Your task to perform on an android device: toggle notifications settings in the gmail app Image 0: 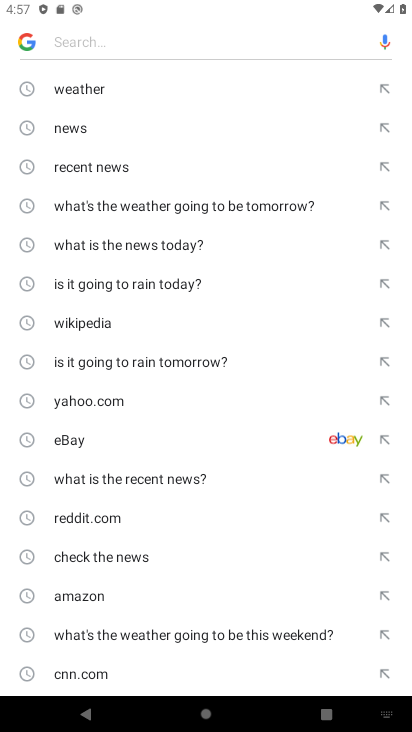
Step 0: press back button
Your task to perform on an android device: toggle notifications settings in the gmail app Image 1: 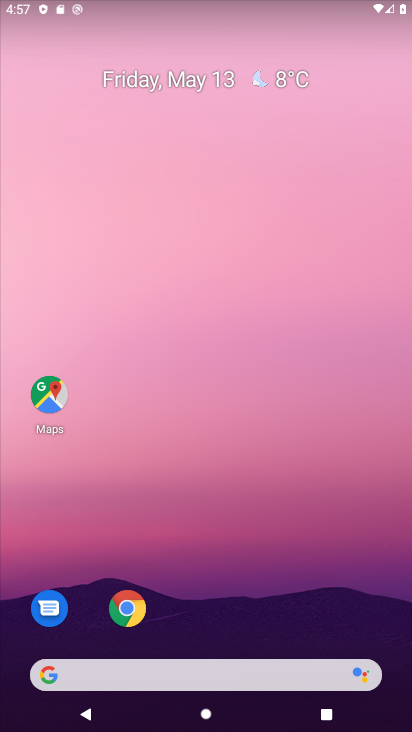
Step 1: drag from (253, 610) to (208, 174)
Your task to perform on an android device: toggle notifications settings in the gmail app Image 2: 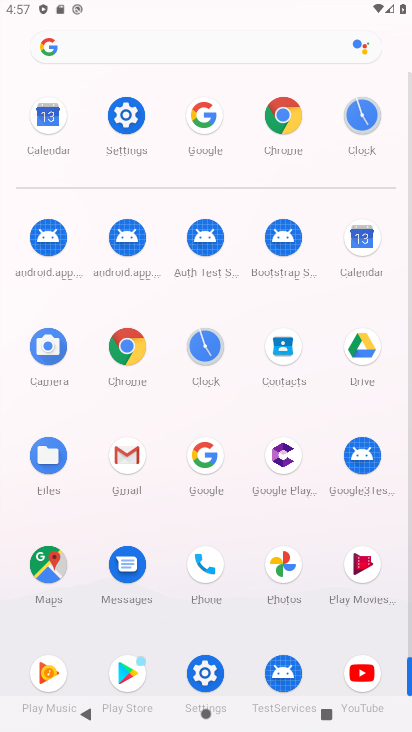
Step 2: click (125, 450)
Your task to perform on an android device: toggle notifications settings in the gmail app Image 3: 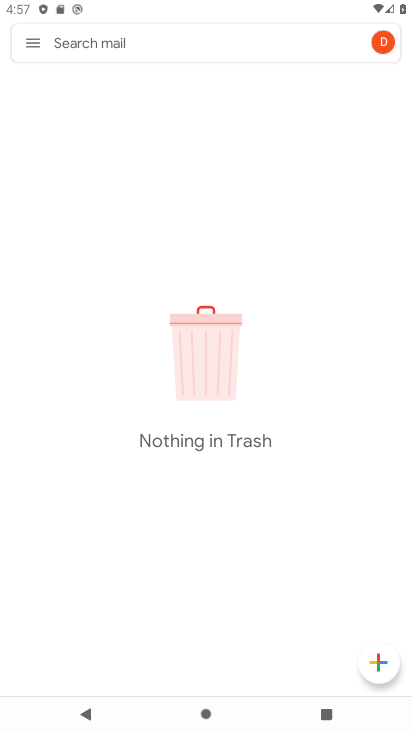
Step 3: click (32, 46)
Your task to perform on an android device: toggle notifications settings in the gmail app Image 4: 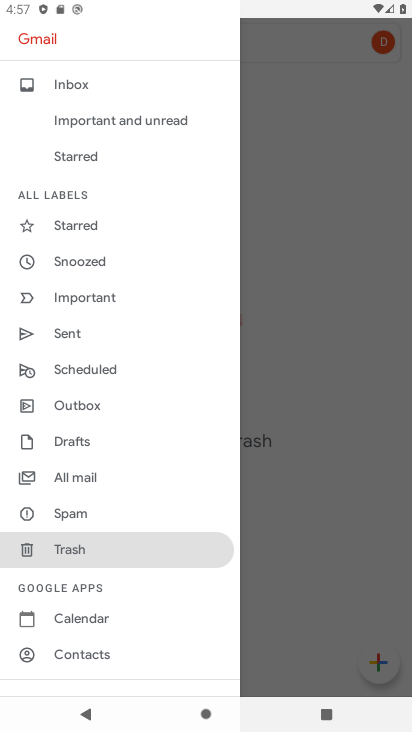
Step 4: drag from (103, 573) to (117, 489)
Your task to perform on an android device: toggle notifications settings in the gmail app Image 5: 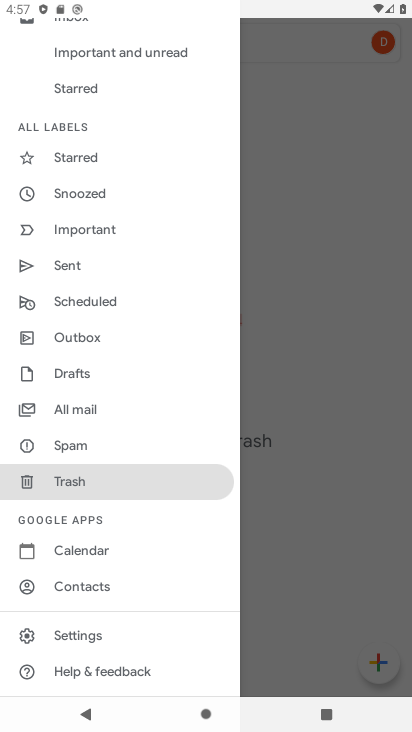
Step 5: click (66, 630)
Your task to perform on an android device: toggle notifications settings in the gmail app Image 6: 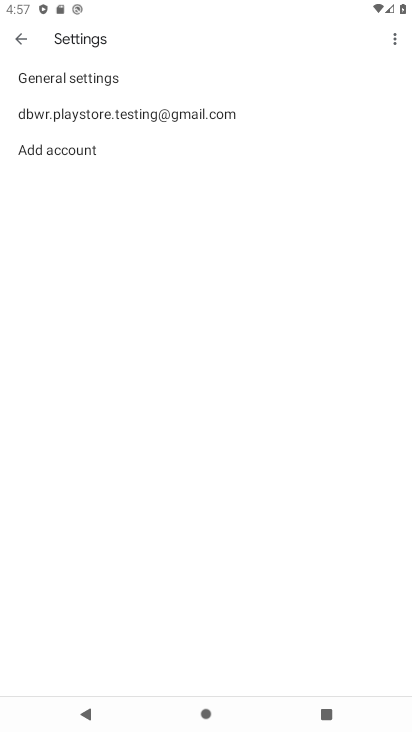
Step 6: click (101, 120)
Your task to perform on an android device: toggle notifications settings in the gmail app Image 7: 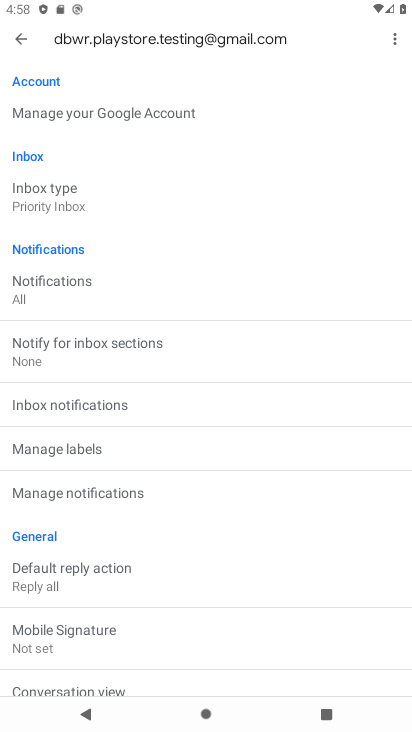
Step 7: click (69, 484)
Your task to perform on an android device: toggle notifications settings in the gmail app Image 8: 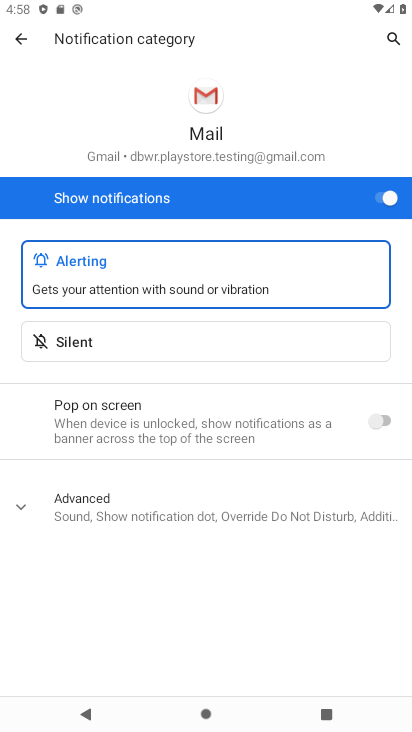
Step 8: click (398, 205)
Your task to perform on an android device: toggle notifications settings in the gmail app Image 9: 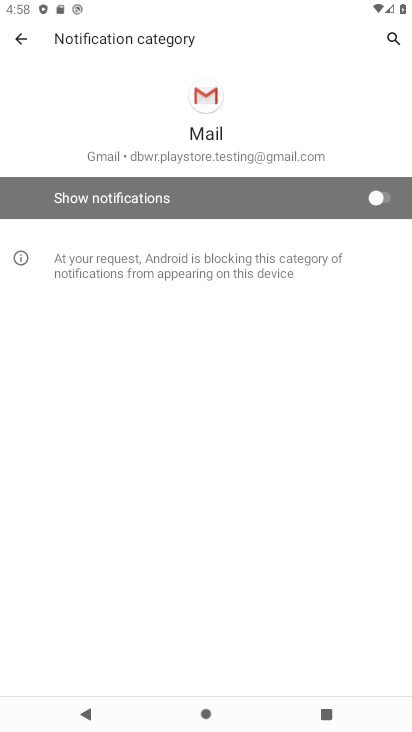
Step 9: task complete